Your task to perform on an android device: Go to notification settings Image 0: 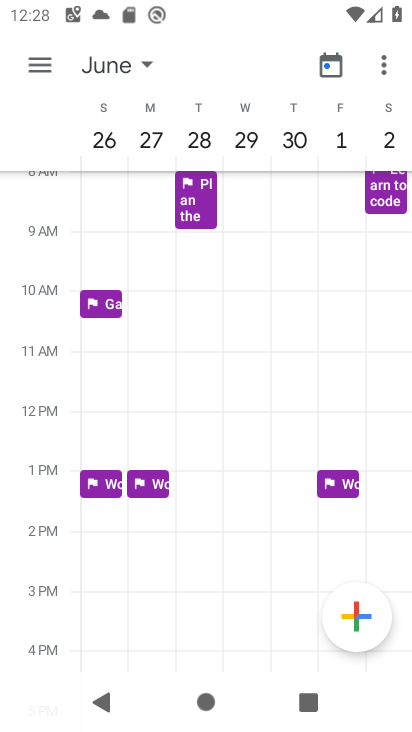
Step 0: press home button
Your task to perform on an android device: Go to notification settings Image 1: 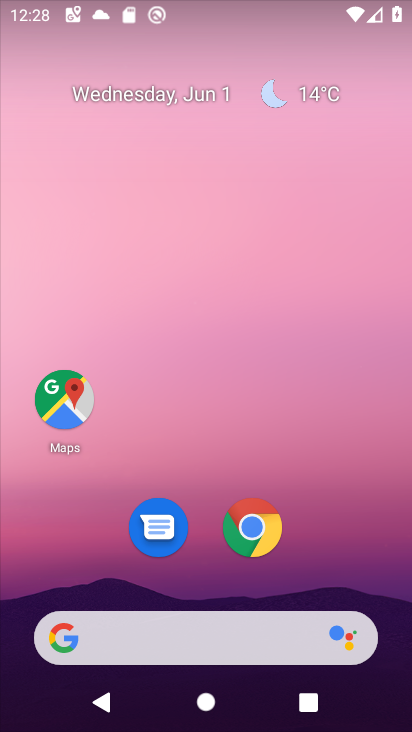
Step 1: drag from (355, 585) to (350, 0)
Your task to perform on an android device: Go to notification settings Image 2: 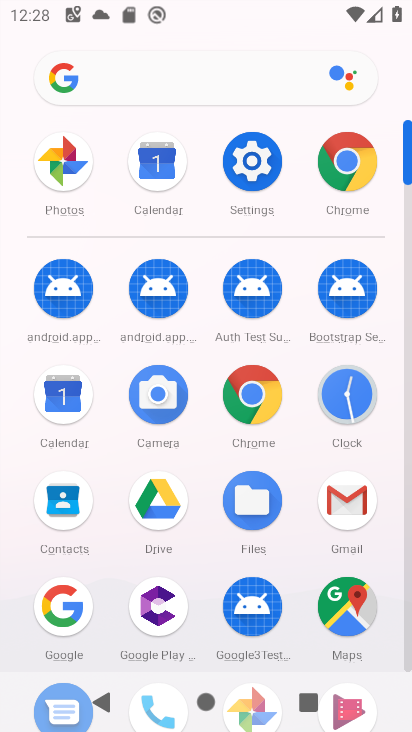
Step 2: click (255, 166)
Your task to perform on an android device: Go to notification settings Image 3: 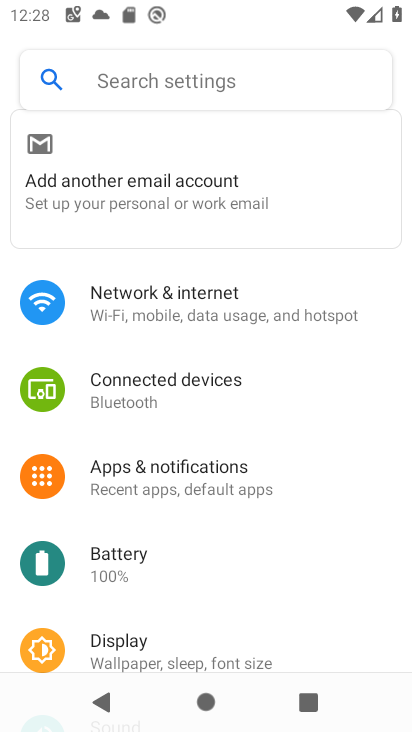
Step 3: click (129, 482)
Your task to perform on an android device: Go to notification settings Image 4: 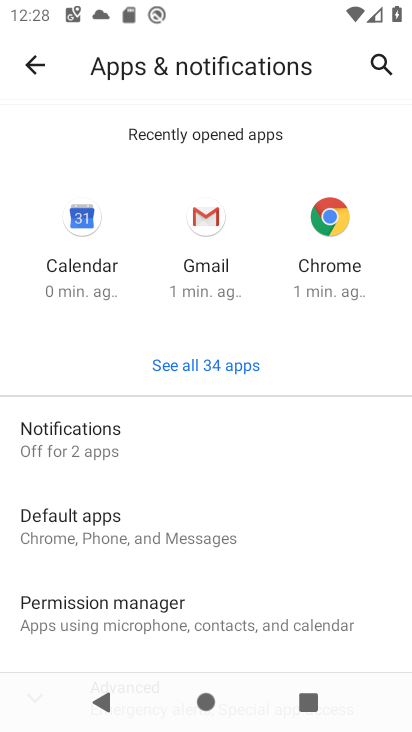
Step 4: click (82, 446)
Your task to perform on an android device: Go to notification settings Image 5: 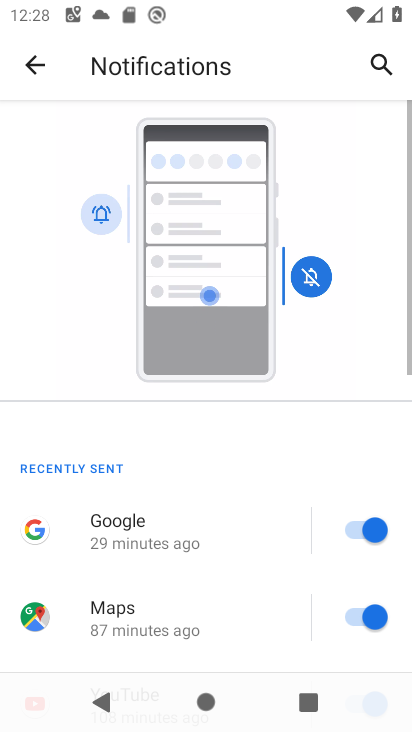
Step 5: task complete